Your task to perform on an android device: Show the shopping cart on walmart. Search for logitech g502 on walmart, select the first entry, and add it to the cart. Image 0: 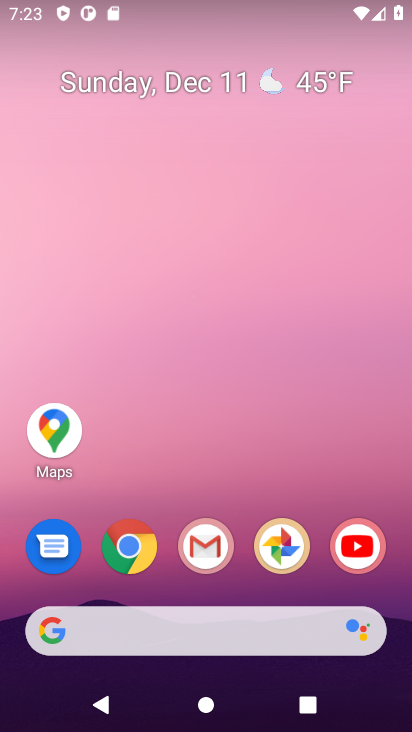
Step 0: click (128, 552)
Your task to perform on an android device: Show the shopping cart on walmart. Search for logitech g502 on walmart, select the first entry, and add it to the cart. Image 1: 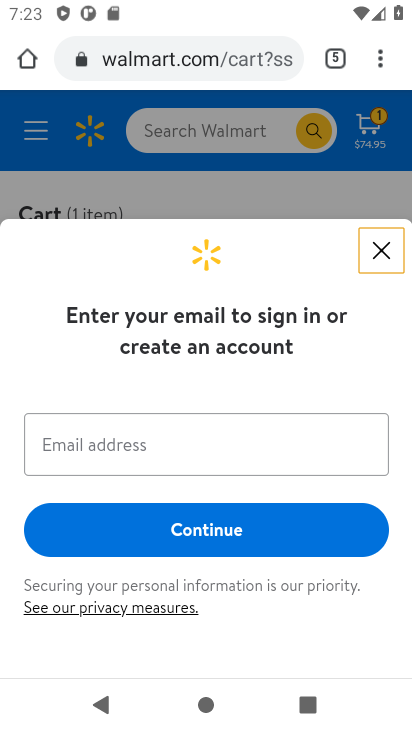
Step 1: click (382, 256)
Your task to perform on an android device: Show the shopping cart on walmart. Search for logitech g502 on walmart, select the first entry, and add it to the cart. Image 2: 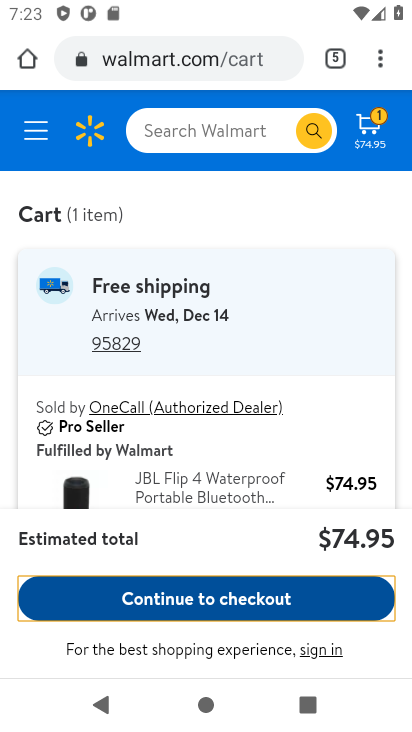
Step 2: drag from (322, 412) to (288, 230)
Your task to perform on an android device: Show the shopping cart on walmart. Search for logitech g502 on walmart, select the first entry, and add it to the cart. Image 3: 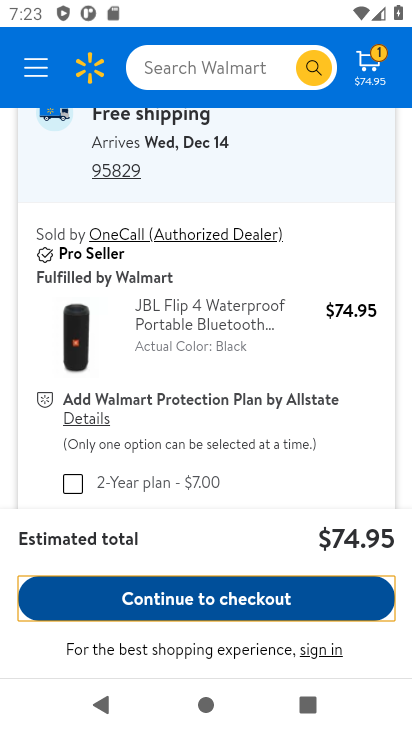
Step 3: click (205, 58)
Your task to perform on an android device: Show the shopping cart on walmart. Search for logitech g502 on walmart, select the first entry, and add it to the cart. Image 4: 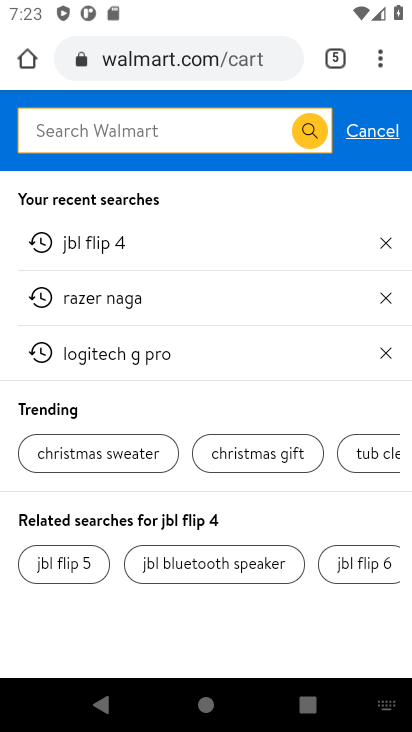
Step 4: type "logitech g502 "
Your task to perform on an android device: Show the shopping cart on walmart. Search for logitech g502 on walmart, select the first entry, and add it to the cart. Image 5: 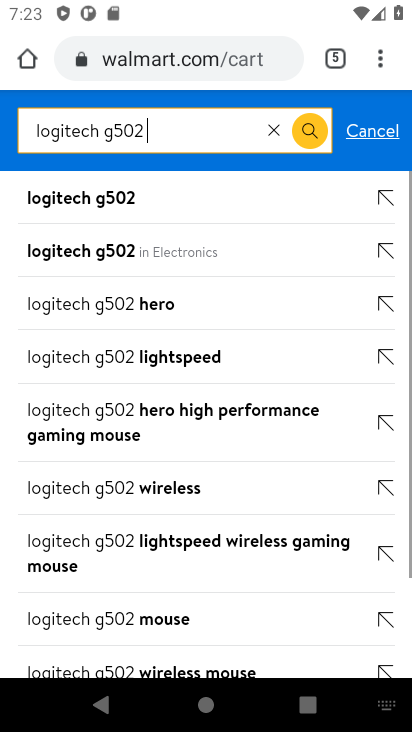
Step 5: click (79, 200)
Your task to perform on an android device: Show the shopping cart on walmart. Search for logitech g502 on walmart, select the first entry, and add it to the cart. Image 6: 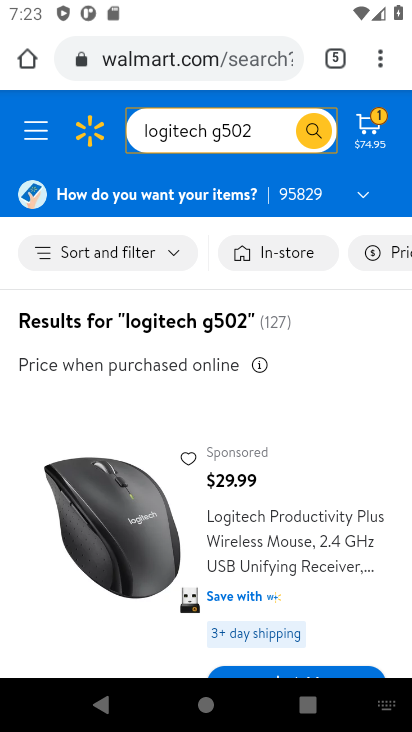
Step 6: task complete